Your task to perform on an android device: Is it going to rain today? Image 0: 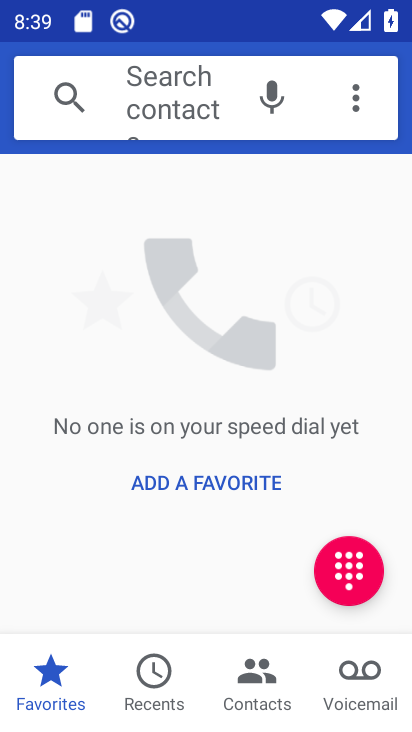
Step 0: press home button
Your task to perform on an android device: Is it going to rain today? Image 1: 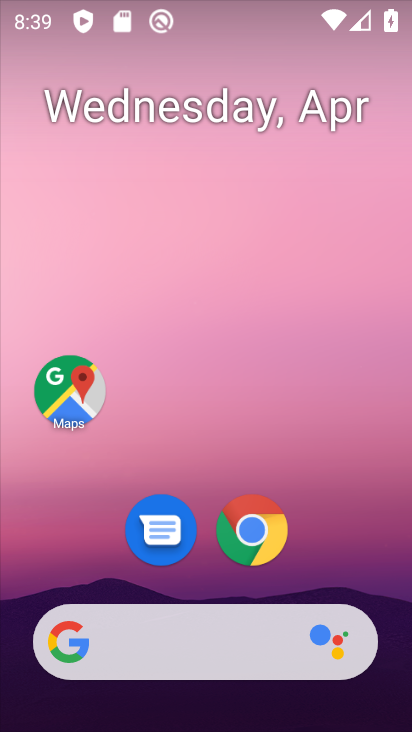
Step 1: drag from (351, 561) to (343, 254)
Your task to perform on an android device: Is it going to rain today? Image 2: 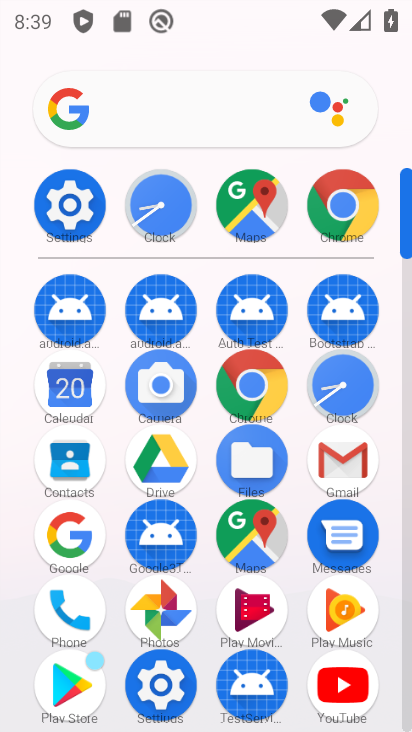
Step 2: click (335, 475)
Your task to perform on an android device: Is it going to rain today? Image 3: 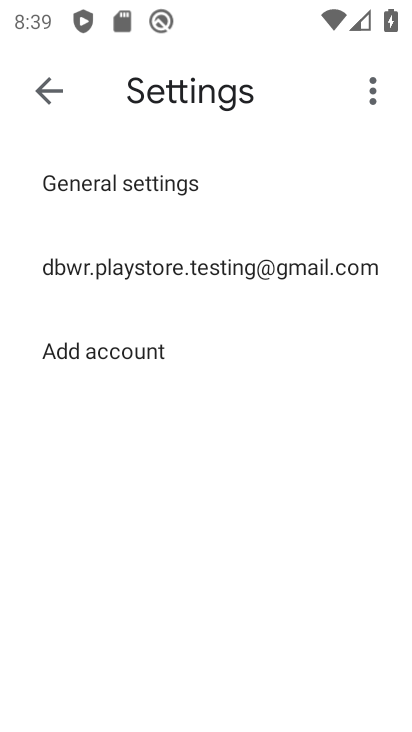
Step 3: press home button
Your task to perform on an android device: Is it going to rain today? Image 4: 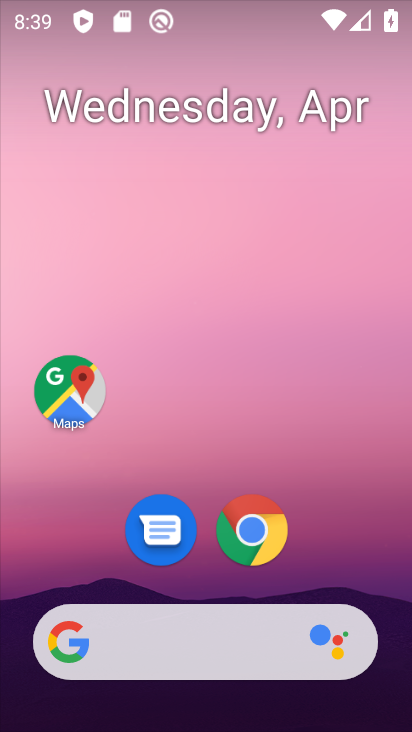
Step 4: click (272, 524)
Your task to perform on an android device: Is it going to rain today? Image 5: 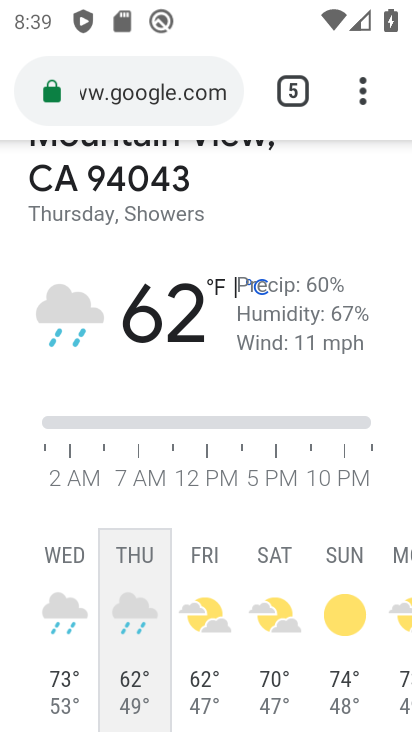
Step 5: click (108, 717)
Your task to perform on an android device: Is it going to rain today? Image 6: 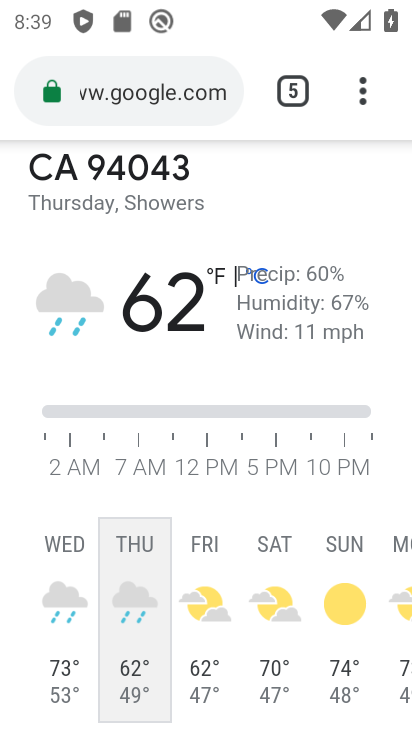
Step 6: click (170, 95)
Your task to perform on an android device: Is it going to rain today? Image 7: 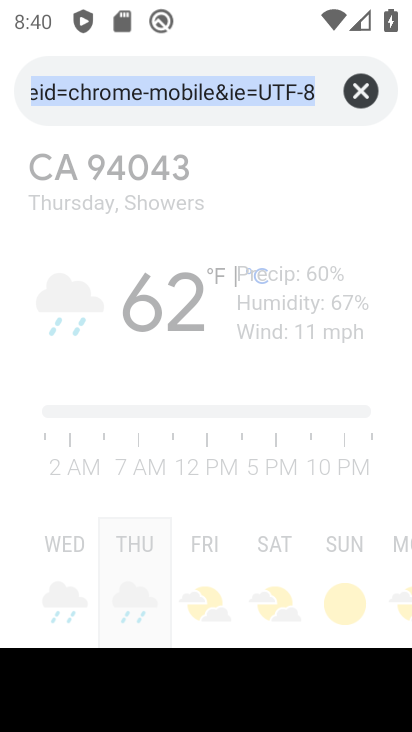
Step 7: type "Is it going to rain today?"
Your task to perform on an android device: Is it going to rain today? Image 8: 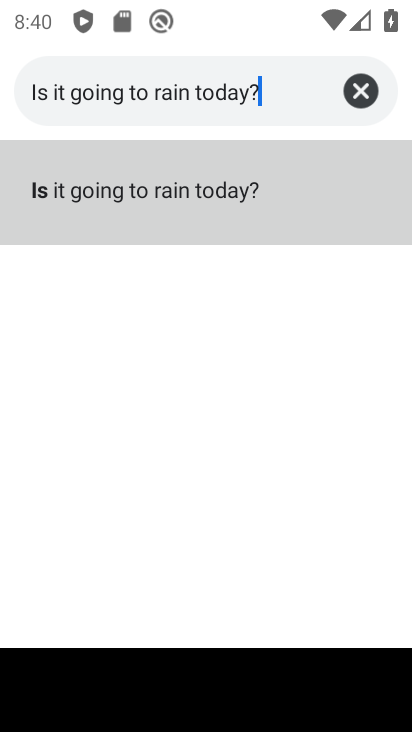
Step 8: click (229, 222)
Your task to perform on an android device: Is it going to rain today? Image 9: 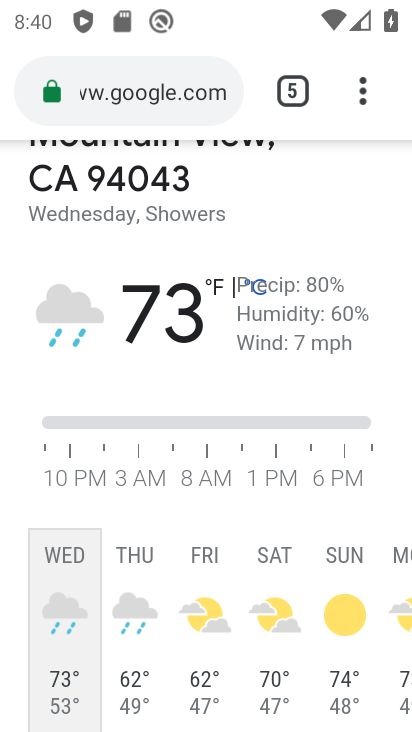
Step 9: task complete